Your task to perform on an android device: uninstall "LiveIn - Share Your Moment" Image 0: 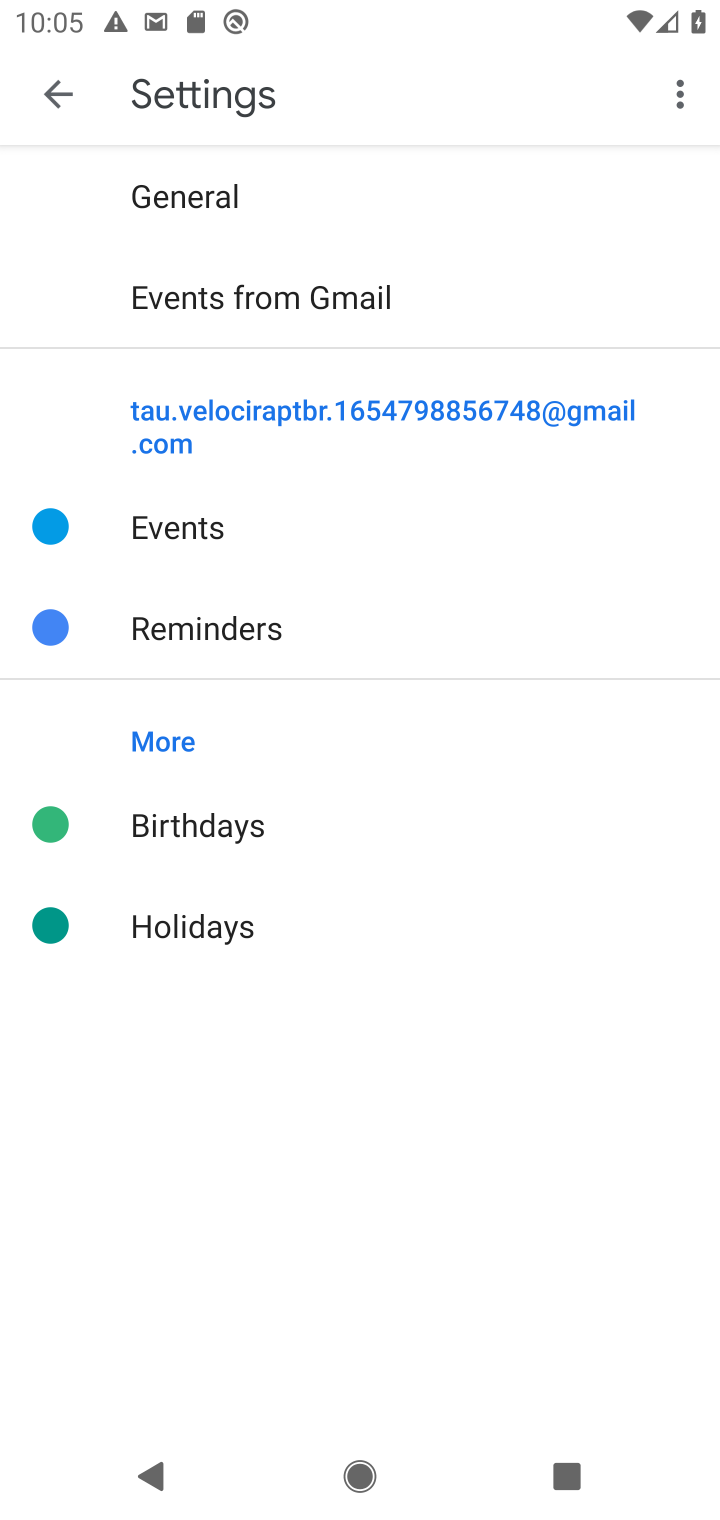
Step 0: press home button
Your task to perform on an android device: uninstall "LiveIn - Share Your Moment" Image 1: 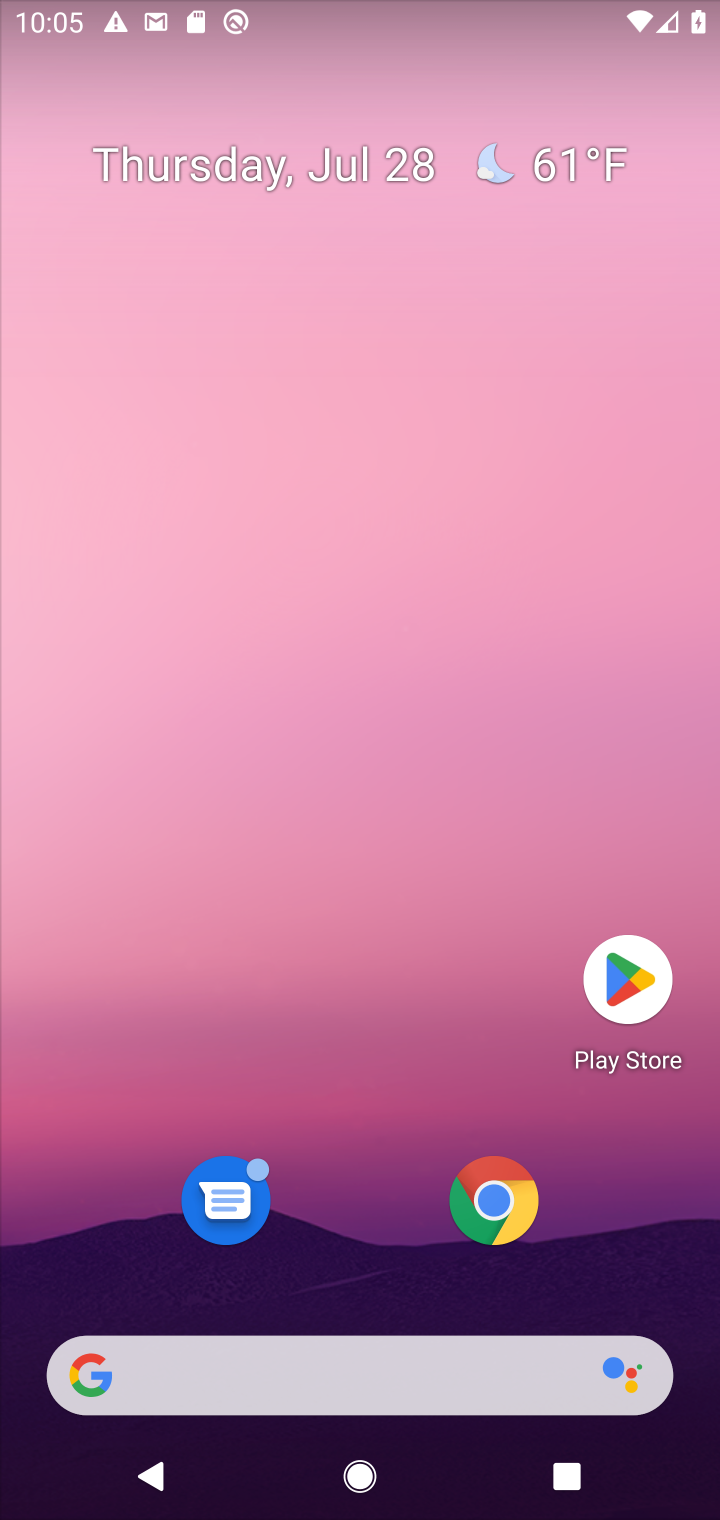
Step 1: click (643, 981)
Your task to perform on an android device: uninstall "LiveIn - Share Your Moment" Image 2: 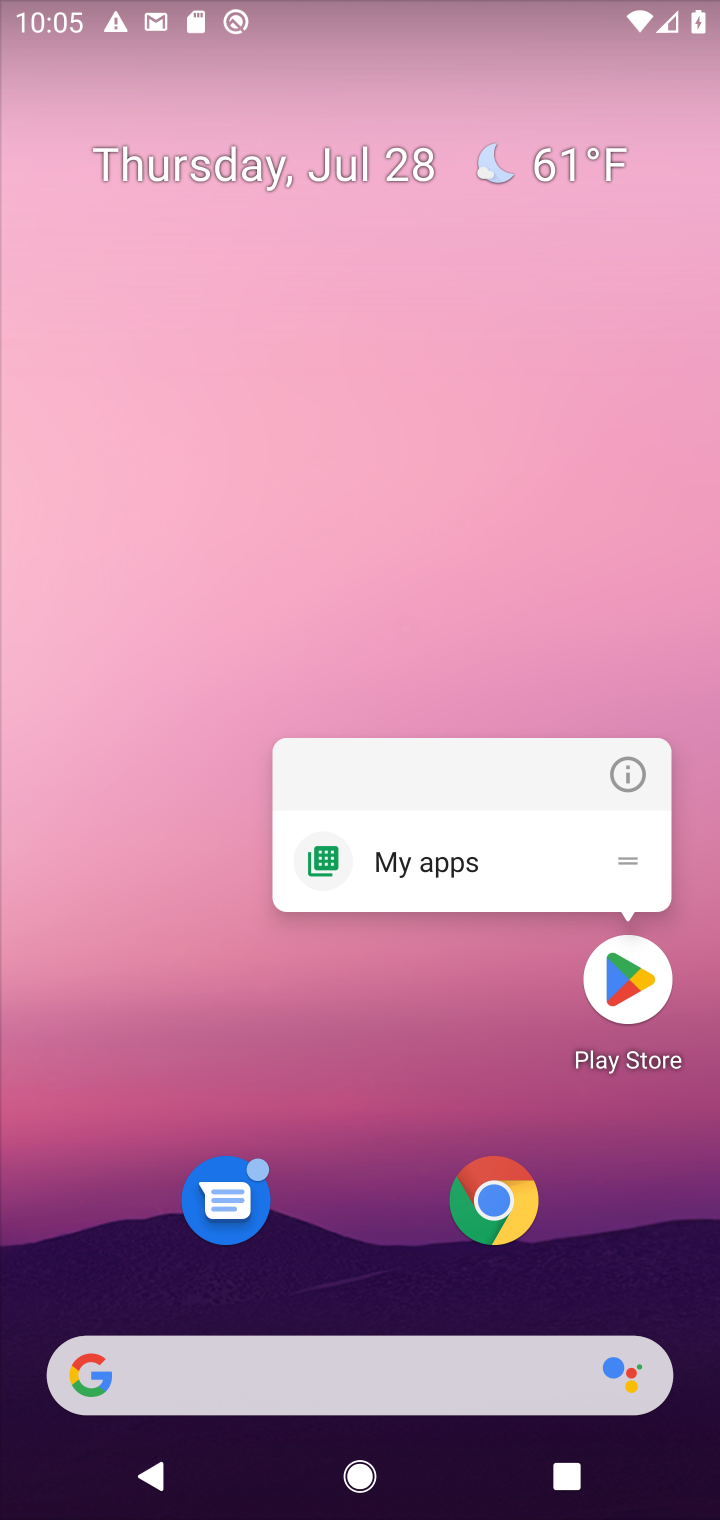
Step 2: click (625, 978)
Your task to perform on an android device: uninstall "LiveIn - Share Your Moment" Image 3: 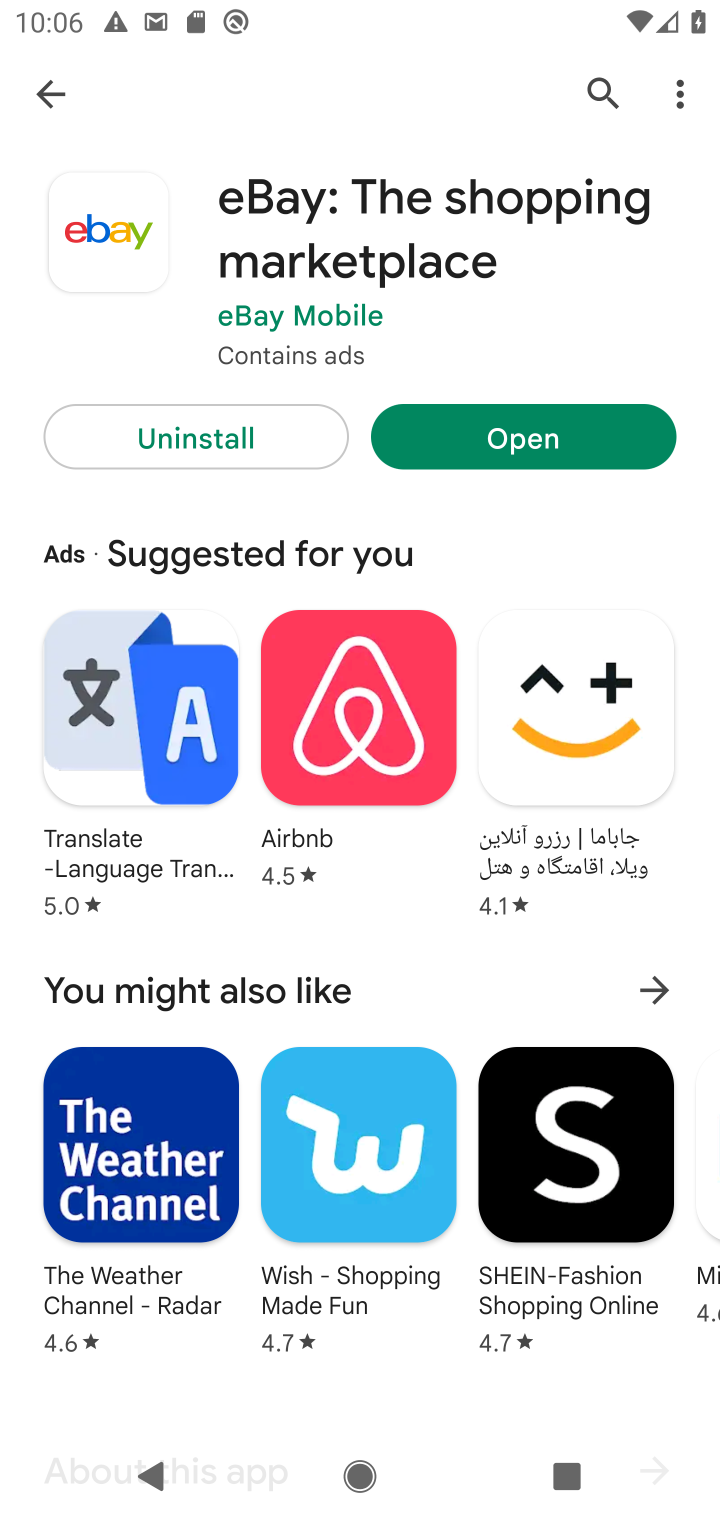
Step 3: click (592, 78)
Your task to perform on an android device: uninstall "LiveIn - Share Your Moment" Image 4: 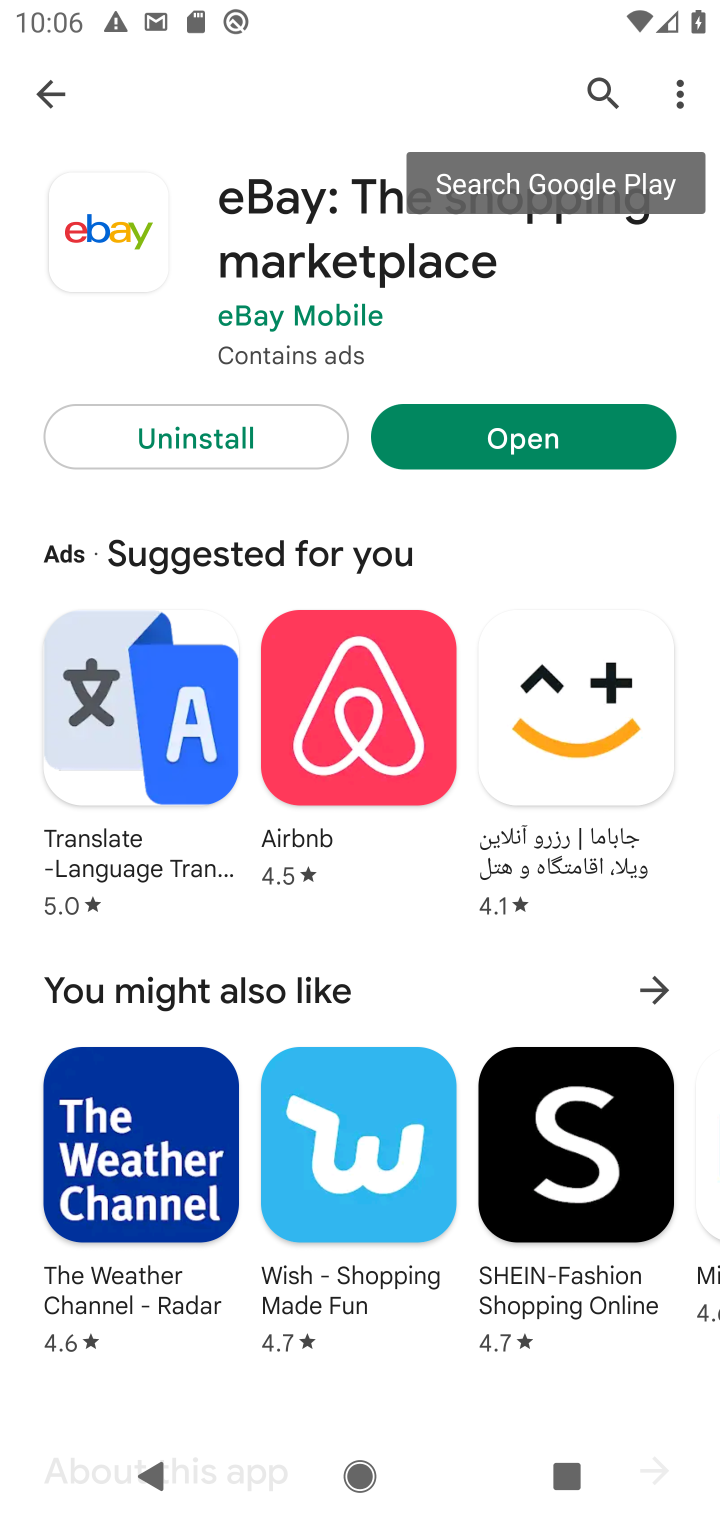
Step 4: click (594, 84)
Your task to perform on an android device: uninstall "LiveIn - Share Your Moment" Image 5: 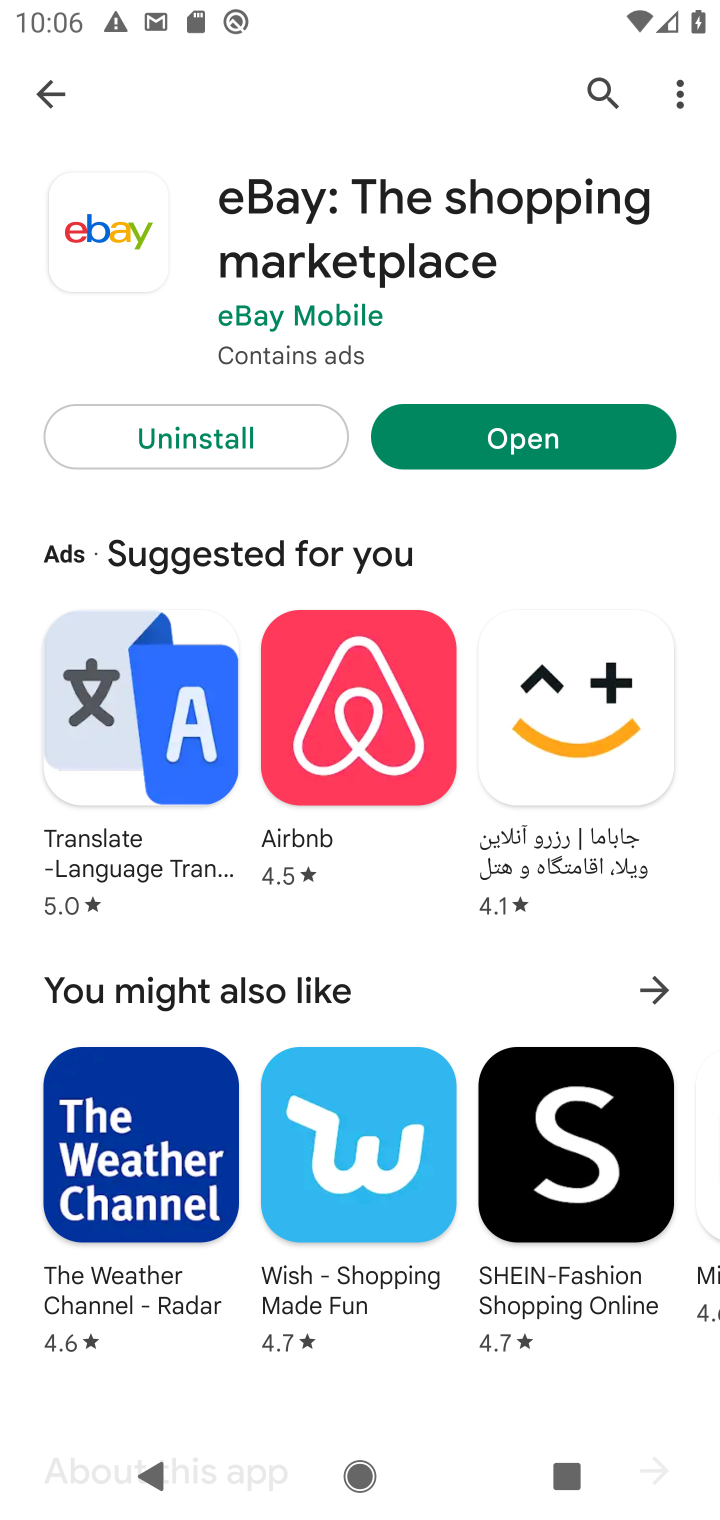
Step 5: click (594, 91)
Your task to perform on an android device: uninstall "LiveIn - Share Your Moment" Image 6: 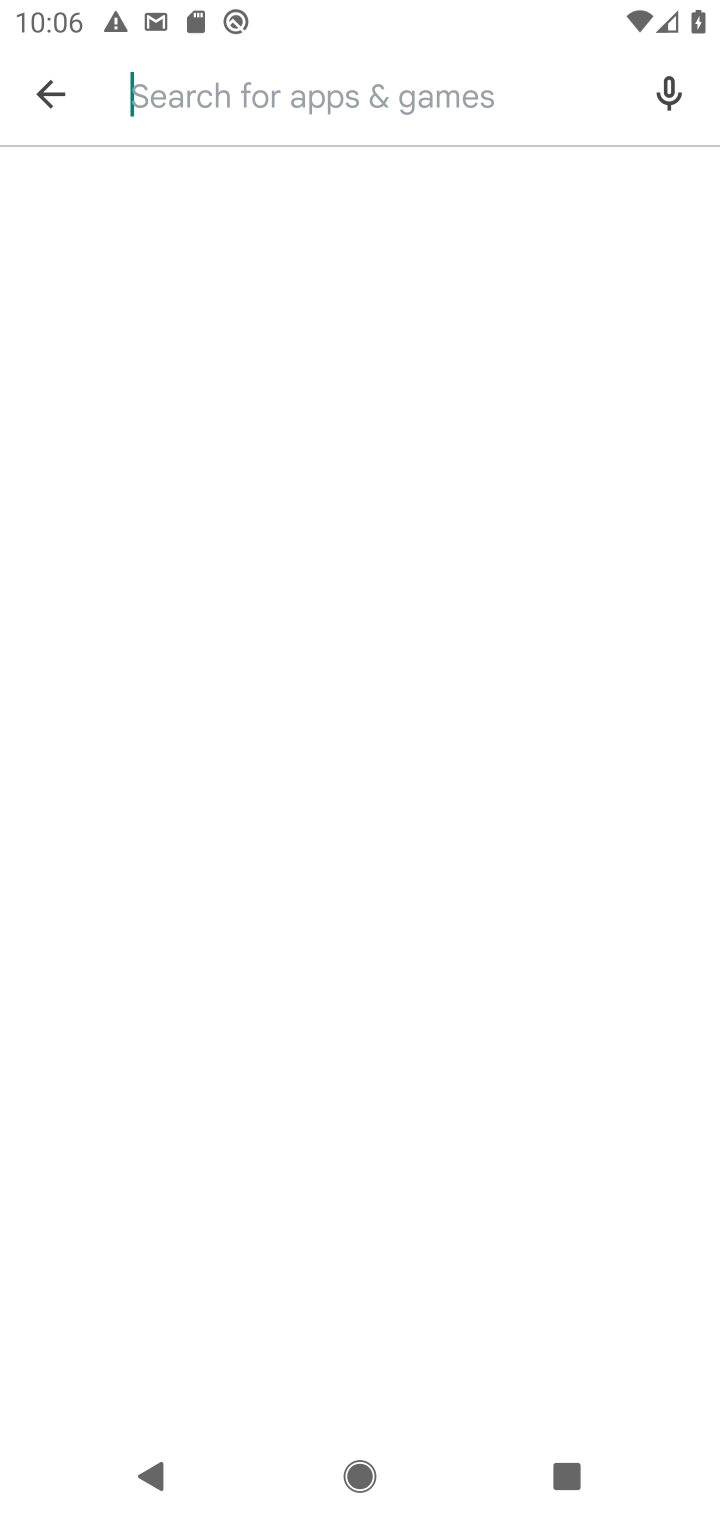
Step 6: click (42, 82)
Your task to perform on an android device: uninstall "LiveIn - Share Your Moment" Image 7: 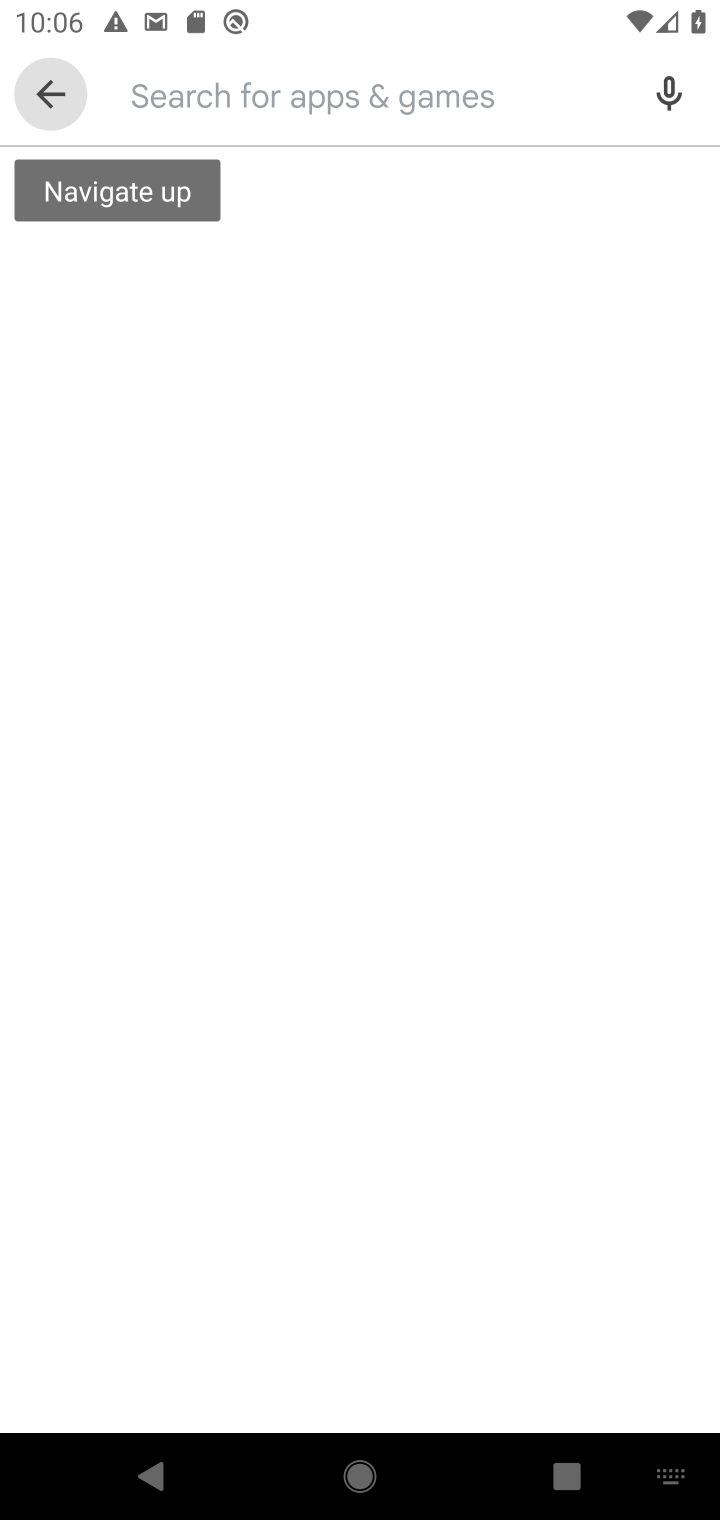
Step 7: click (477, 78)
Your task to perform on an android device: uninstall "LiveIn - Share Your Moment" Image 8: 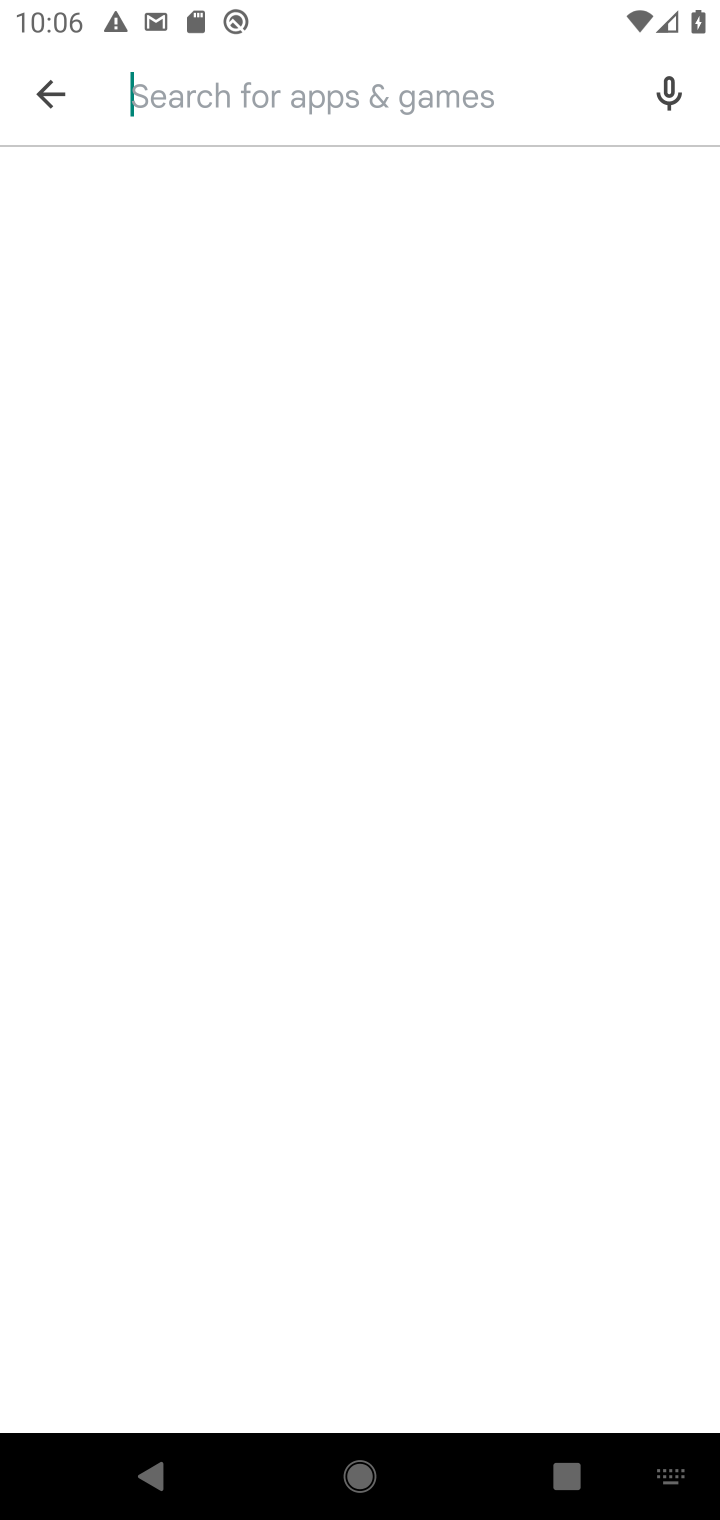
Step 8: type "LiveIn - Share Your Moment"
Your task to perform on an android device: uninstall "LiveIn - Share Your Moment" Image 9: 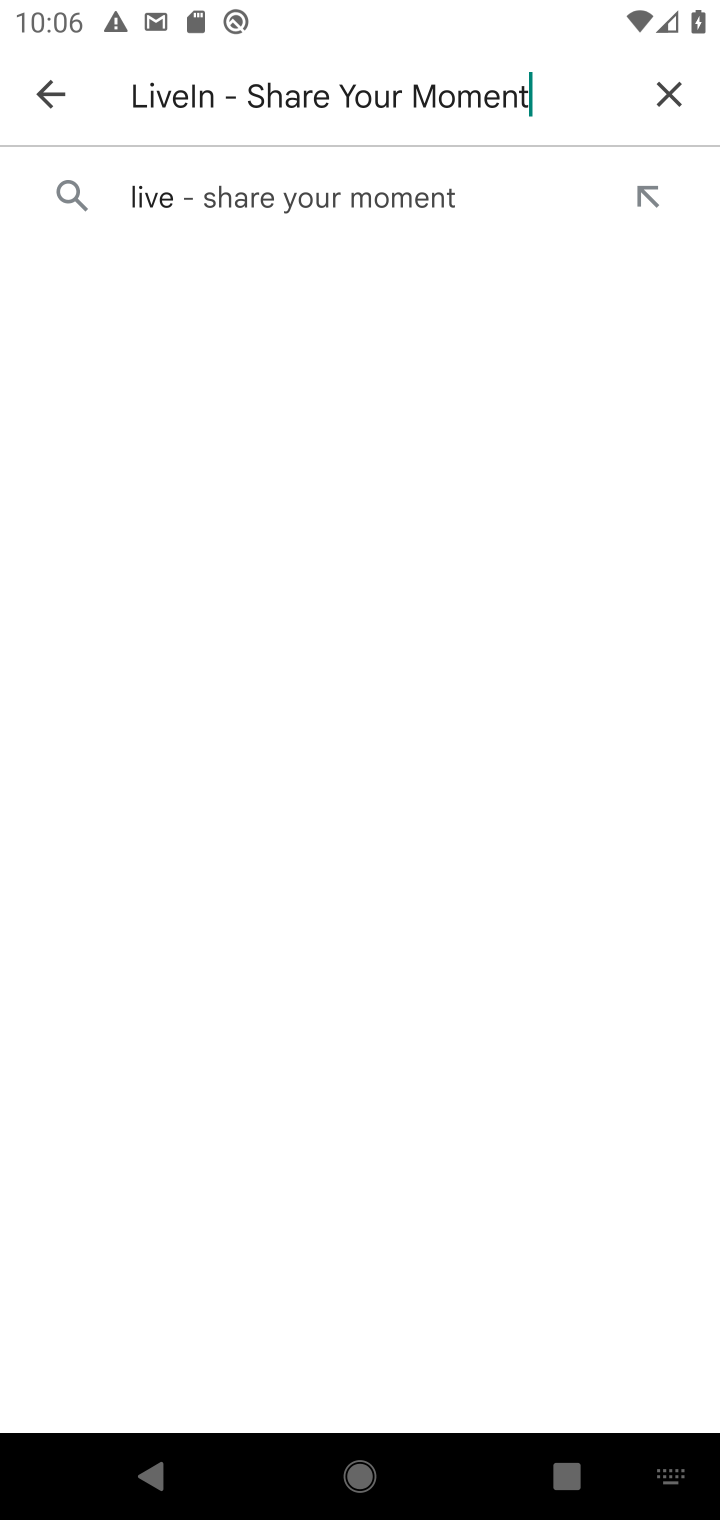
Step 9: click (338, 193)
Your task to perform on an android device: uninstall "LiveIn - Share Your Moment" Image 10: 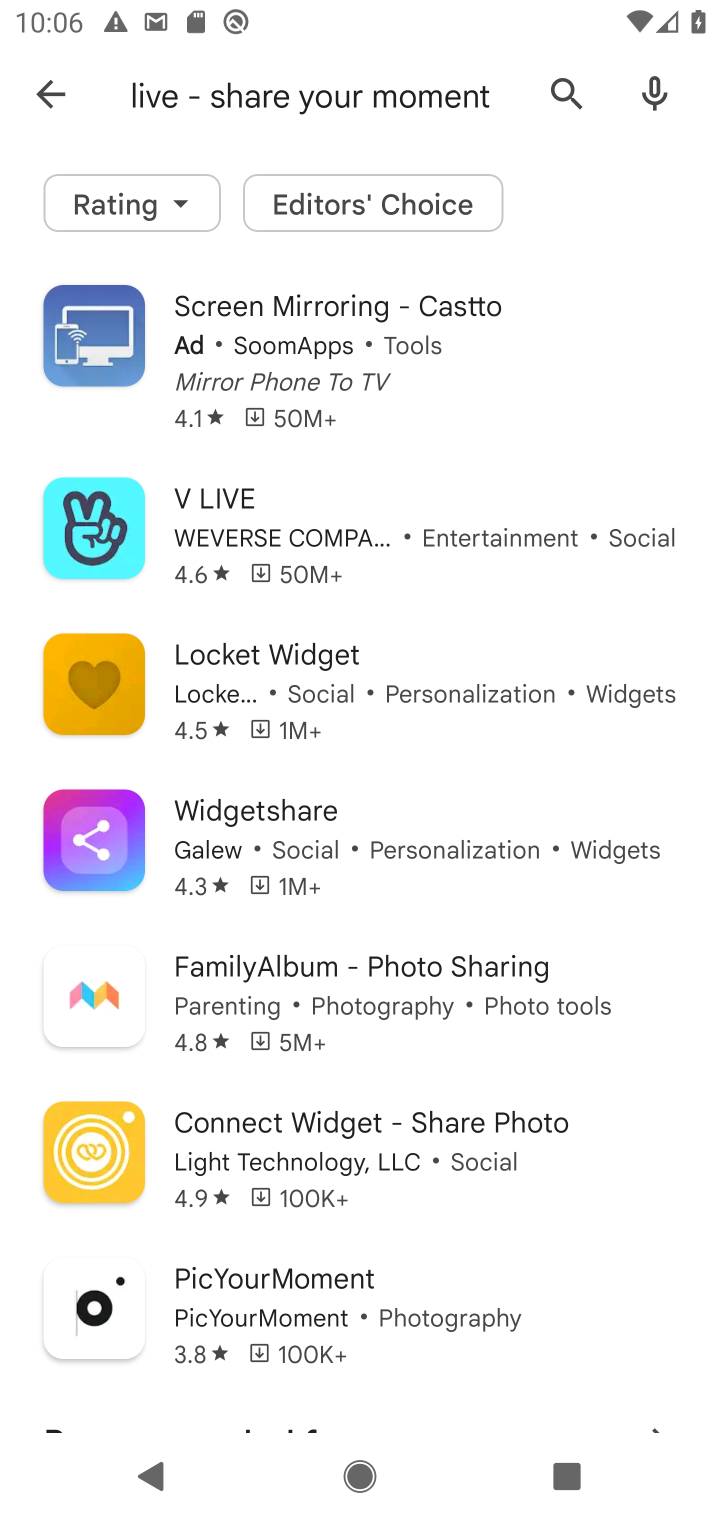
Step 10: task complete